Your task to perform on an android device: see creations saved in the google photos Image 0: 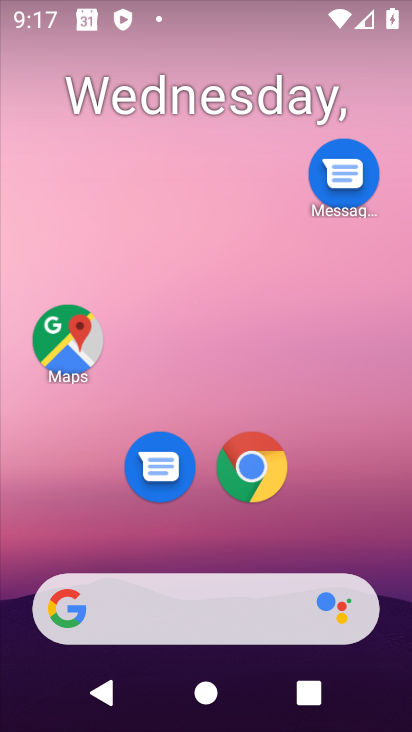
Step 0: click (344, 528)
Your task to perform on an android device: see creations saved in the google photos Image 1: 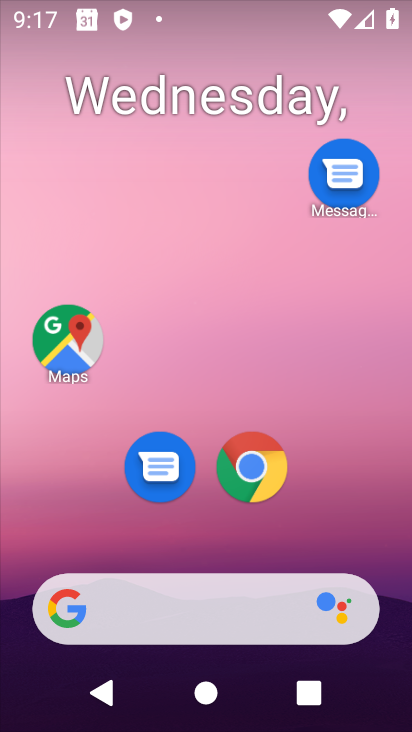
Step 1: drag from (330, 495) to (168, 159)
Your task to perform on an android device: see creations saved in the google photos Image 2: 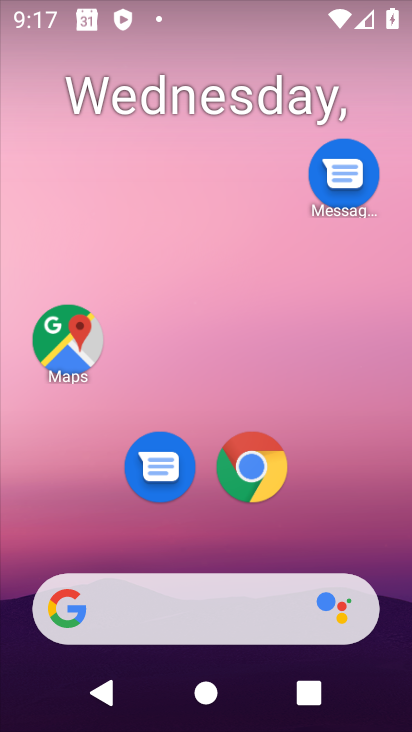
Step 2: click (120, 51)
Your task to perform on an android device: see creations saved in the google photos Image 3: 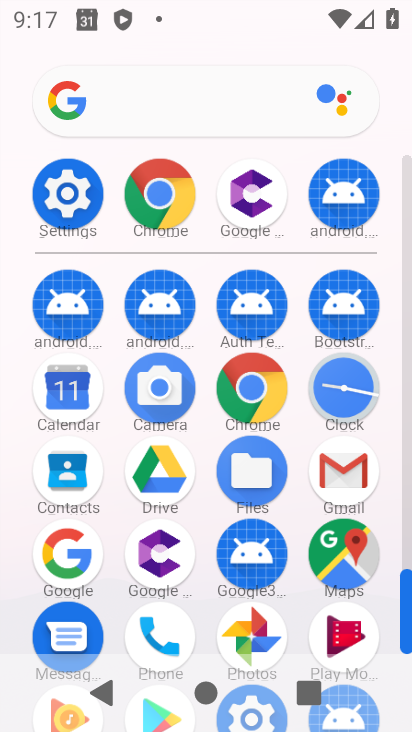
Step 3: drag from (212, 433) to (174, 162)
Your task to perform on an android device: see creations saved in the google photos Image 4: 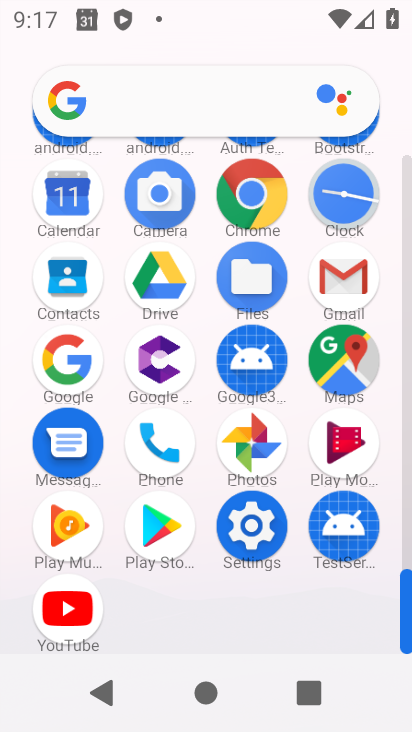
Step 4: click (265, 444)
Your task to perform on an android device: see creations saved in the google photos Image 5: 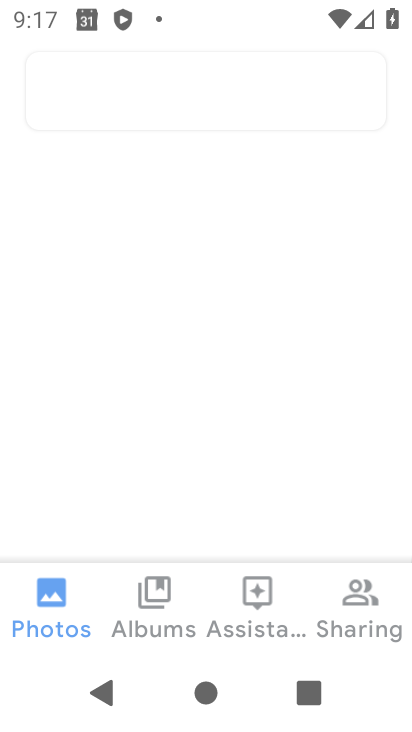
Step 5: click (249, 449)
Your task to perform on an android device: see creations saved in the google photos Image 6: 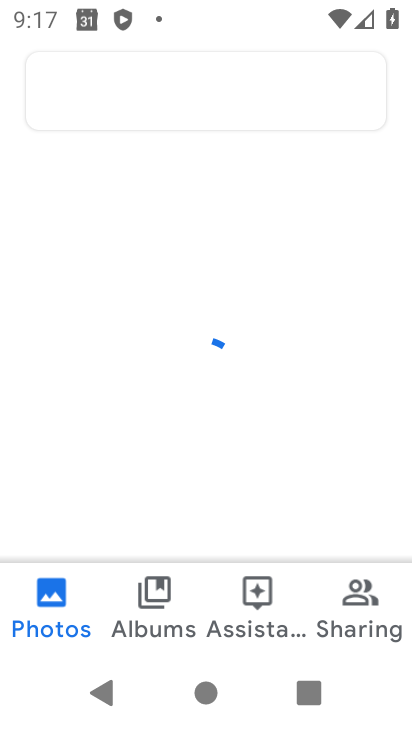
Step 6: click (240, 444)
Your task to perform on an android device: see creations saved in the google photos Image 7: 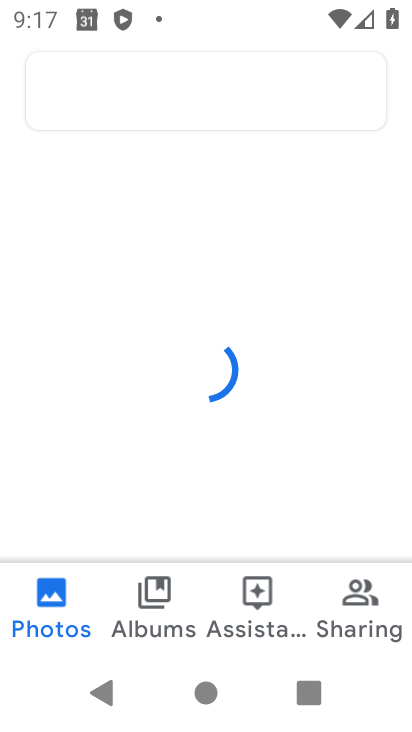
Step 7: click (251, 439)
Your task to perform on an android device: see creations saved in the google photos Image 8: 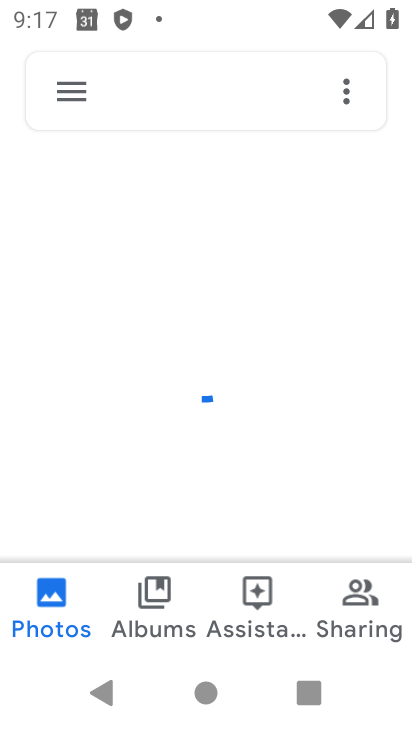
Step 8: click (250, 435)
Your task to perform on an android device: see creations saved in the google photos Image 9: 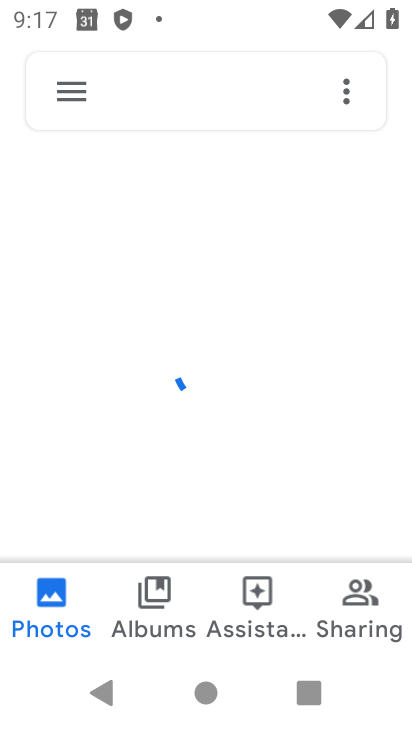
Step 9: click (251, 430)
Your task to perform on an android device: see creations saved in the google photos Image 10: 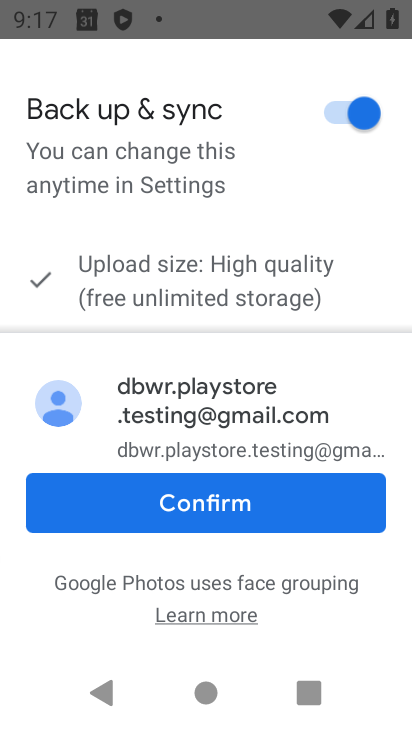
Step 10: click (203, 508)
Your task to perform on an android device: see creations saved in the google photos Image 11: 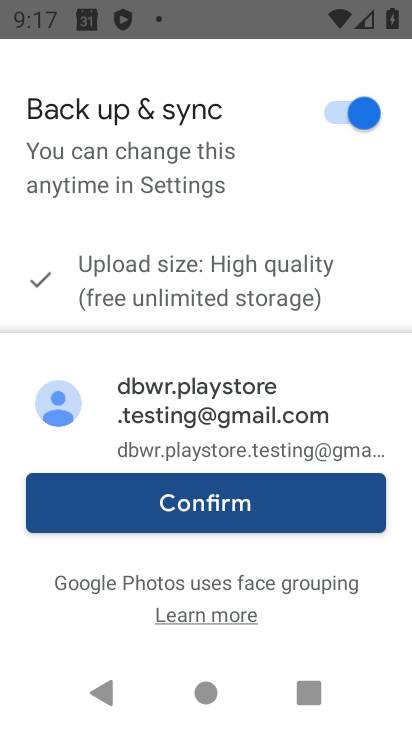
Step 11: click (193, 495)
Your task to perform on an android device: see creations saved in the google photos Image 12: 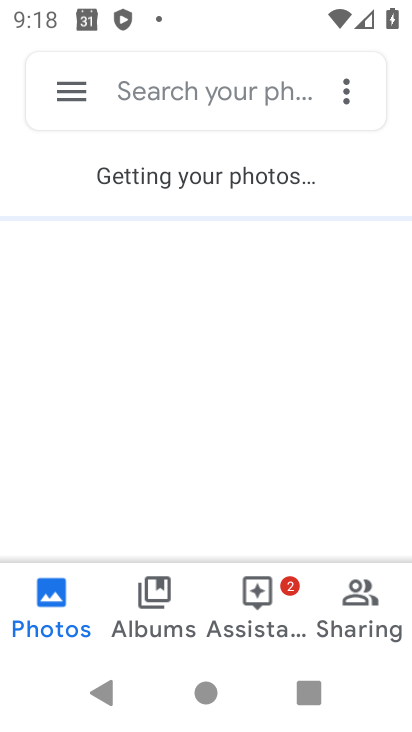
Step 12: click (176, 413)
Your task to perform on an android device: see creations saved in the google photos Image 13: 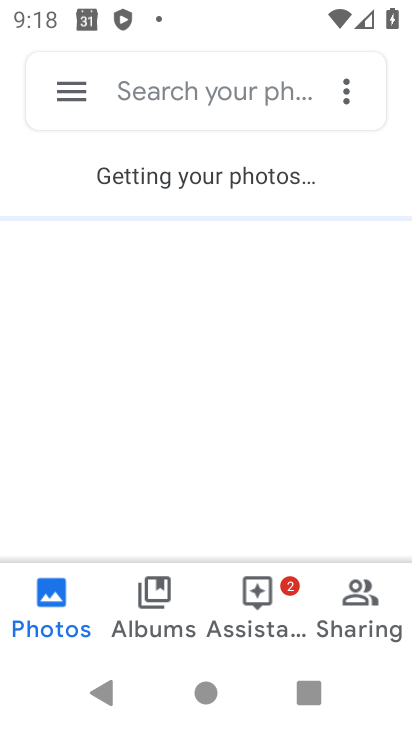
Step 13: click (179, 404)
Your task to perform on an android device: see creations saved in the google photos Image 14: 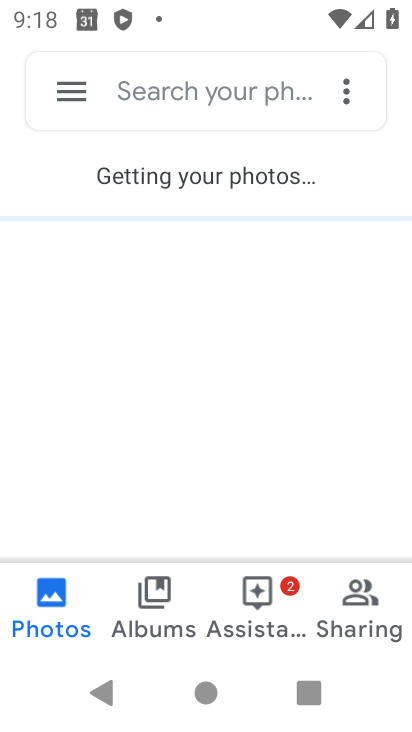
Step 14: click (177, 392)
Your task to perform on an android device: see creations saved in the google photos Image 15: 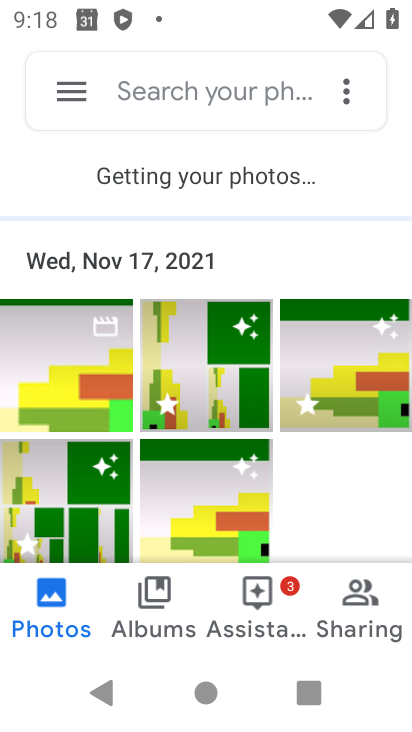
Step 15: task complete